Your task to perform on an android device: change the clock display to digital Image 0: 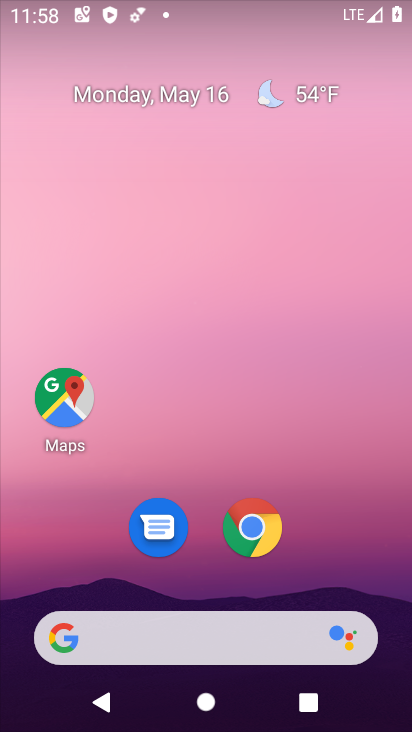
Step 0: drag from (265, 664) to (276, 277)
Your task to perform on an android device: change the clock display to digital Image 1: 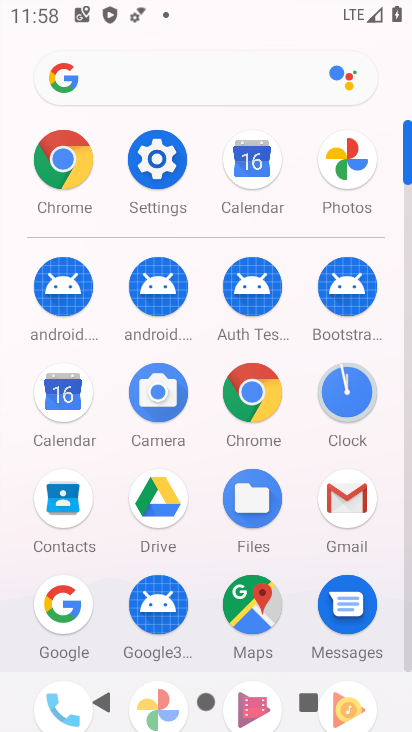
Step 1: click (354, 374)
Your task to perform on an android device: change the clock display to digital Image 2: 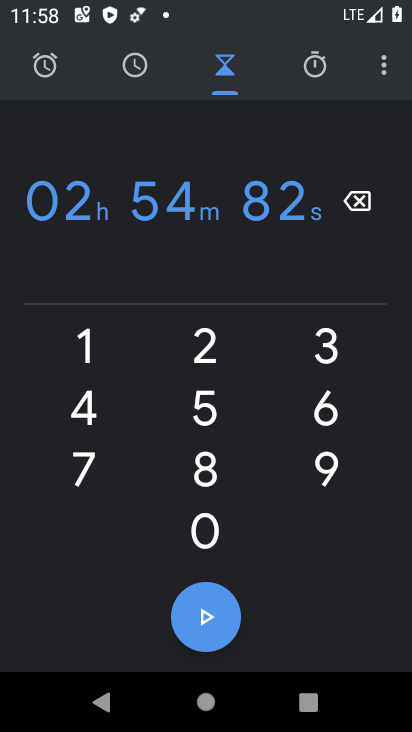
Step 2: click (383, 67)
Your task to perform on an android device: change the clock display to digital Image 3: 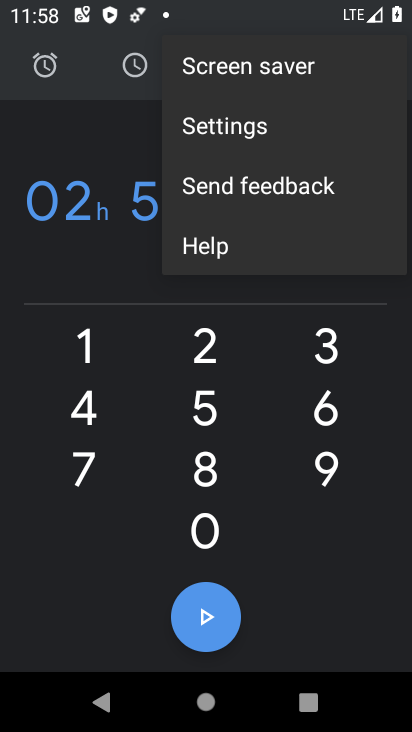
Step 3: click (265, 139)
Your task to perform on an android device: change the clock display to digital Image 4: 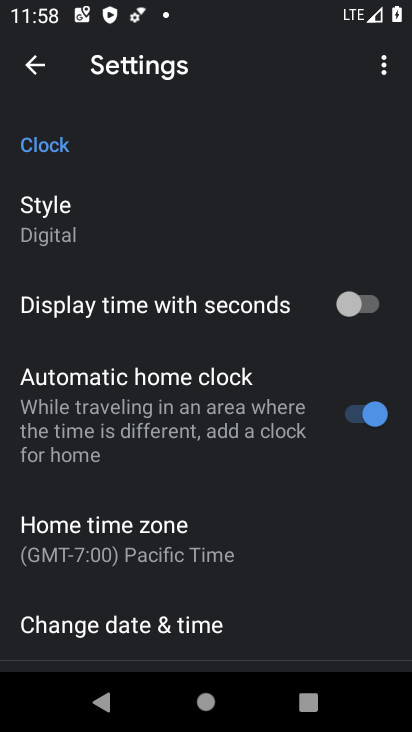
Step 4: click (153, 221)
Your task to perform on an android device: change the clock display to digital Image 5: 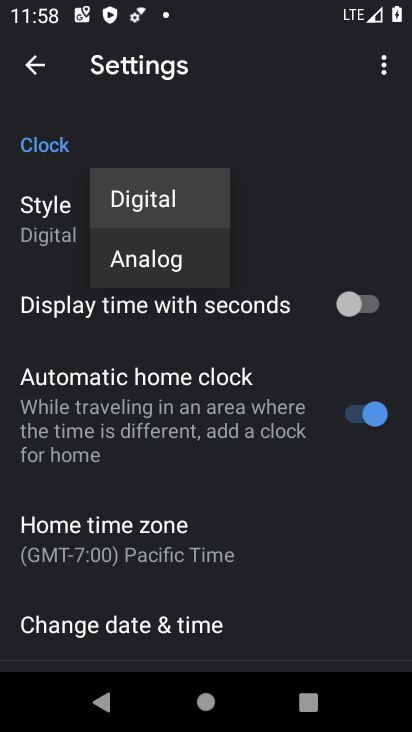
Step 5: click (165, 205)
Your task to perform on an android device: change the clock display to digital Image 6: 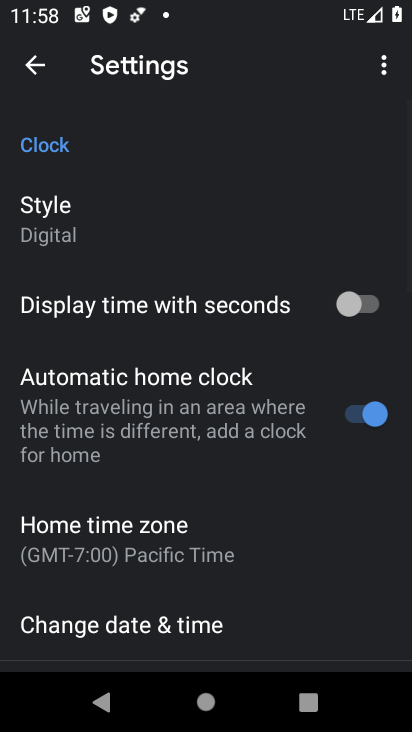
Step 6: task complete